Your task to perform on an android device: open a bookmark in the chrome app Image 0: 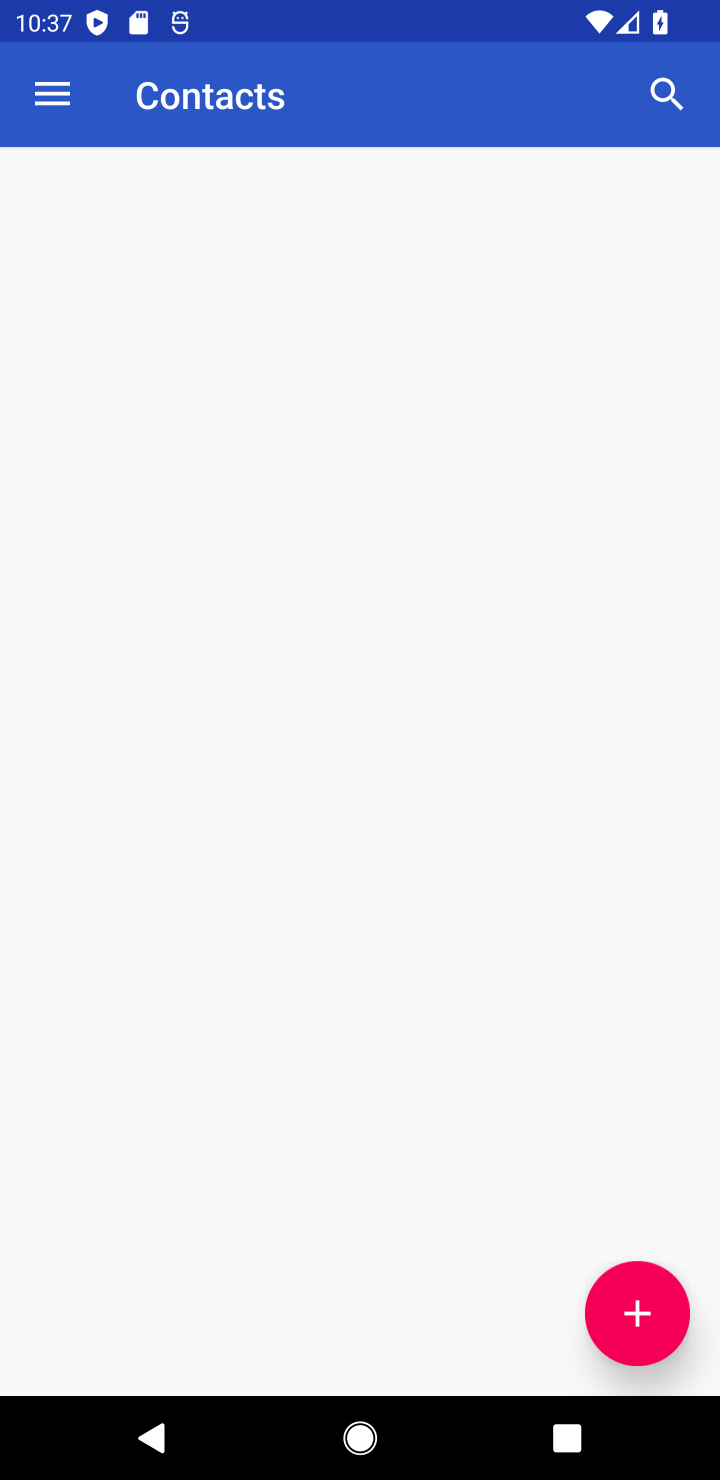
Step 0: press home button
Your task to perform on an android device: open a bookmark in the chrome app Image 1: 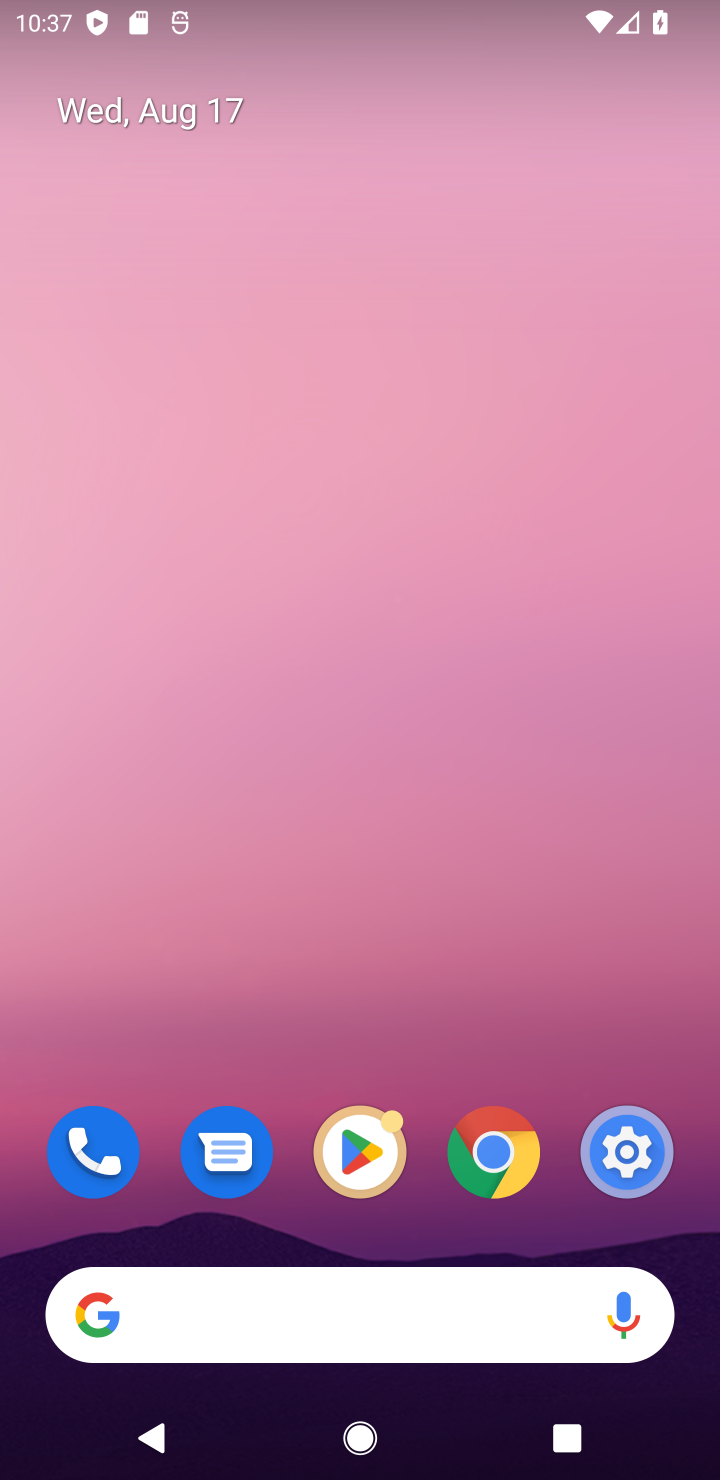
Step 1: drag from (547, 1178) to (296, 42)
Your task to perform on an android device: open a bookmark in the chrome app Image 2: 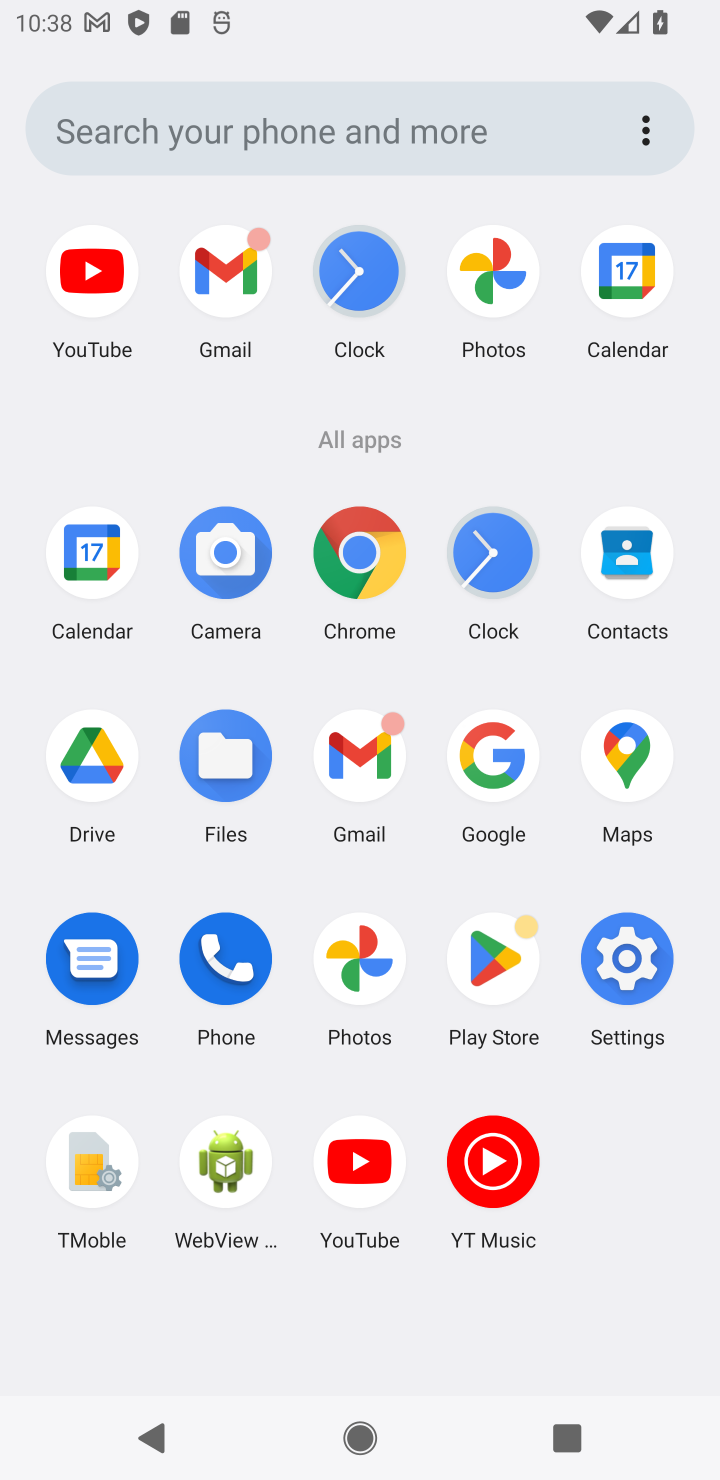
Step 2: click (362, 565)
Your task to perform on an android device: open a bookmark in the chrome app Image 3: 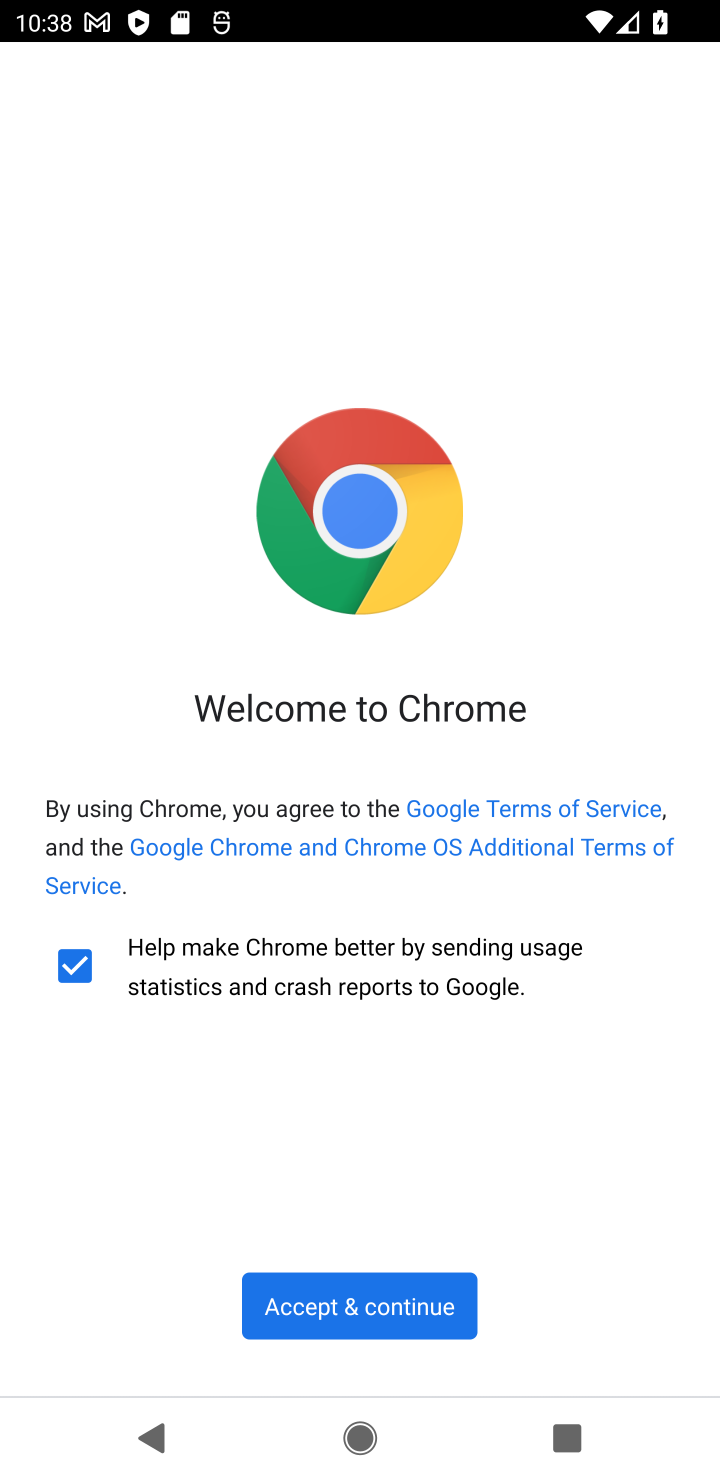
Step 3: click (370, 1302)
Your task to perform on an android device: open a bookmark in the chrome app Image 4: 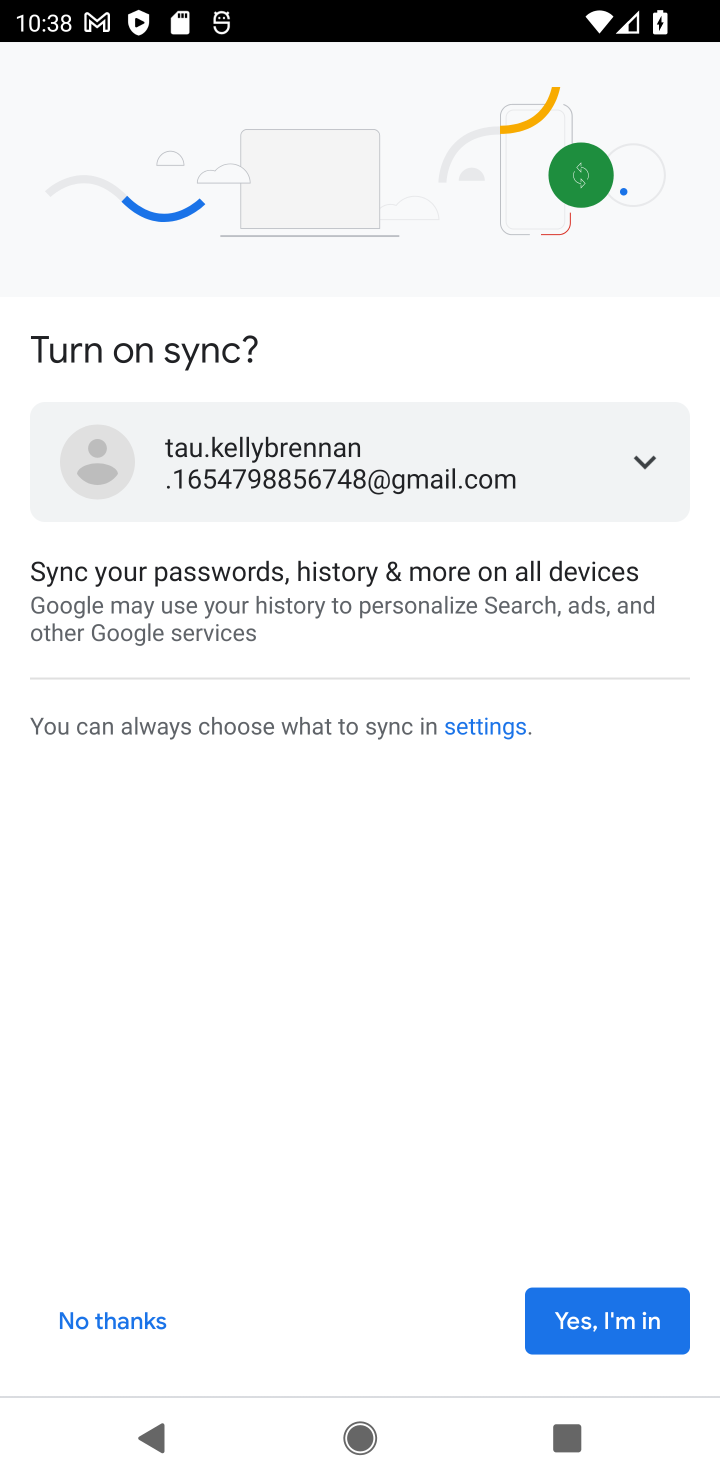
Step 4: click (555, 1321)
Your task to perform on an android device: open a bookmark in the chrome app Image 5: 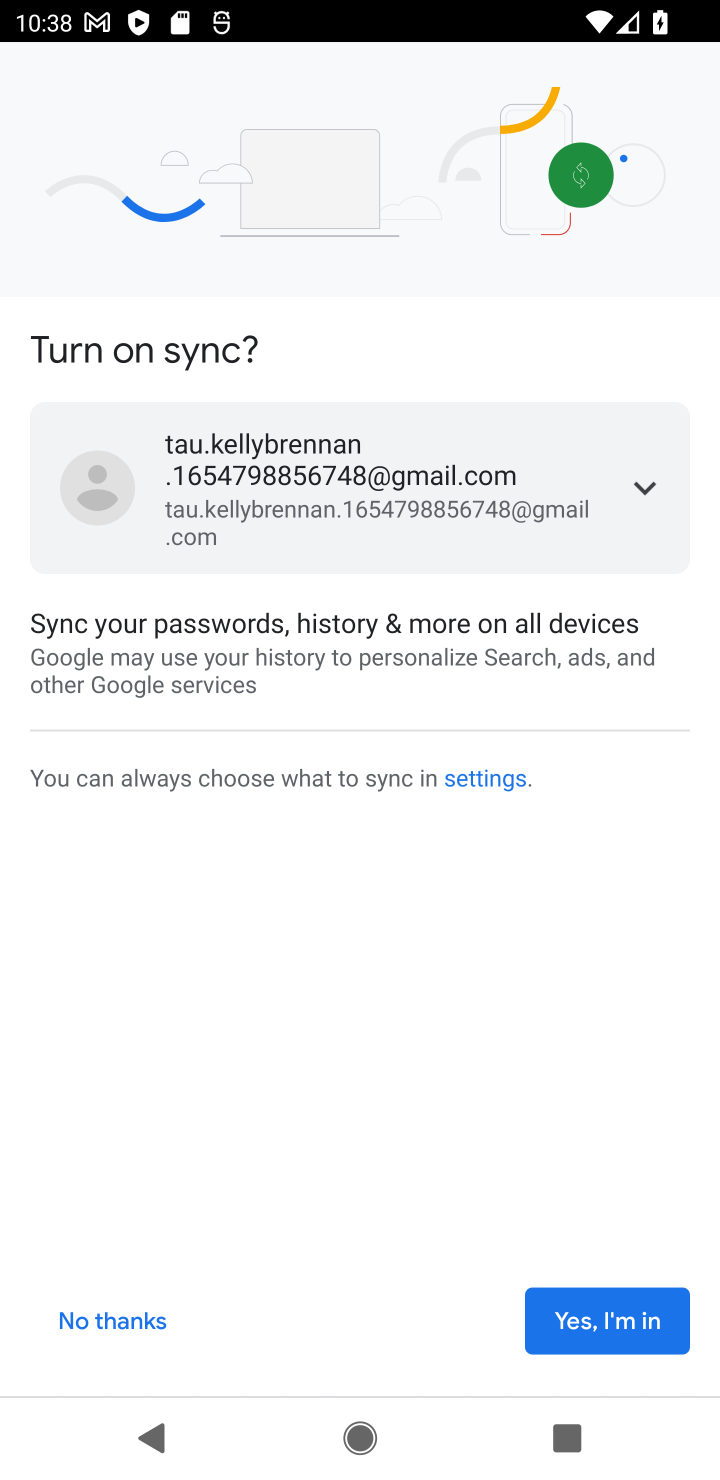
Step 5: click (610, 1323)
Your task to perform on an android device: open a bookmark in the chrome app Image 6: 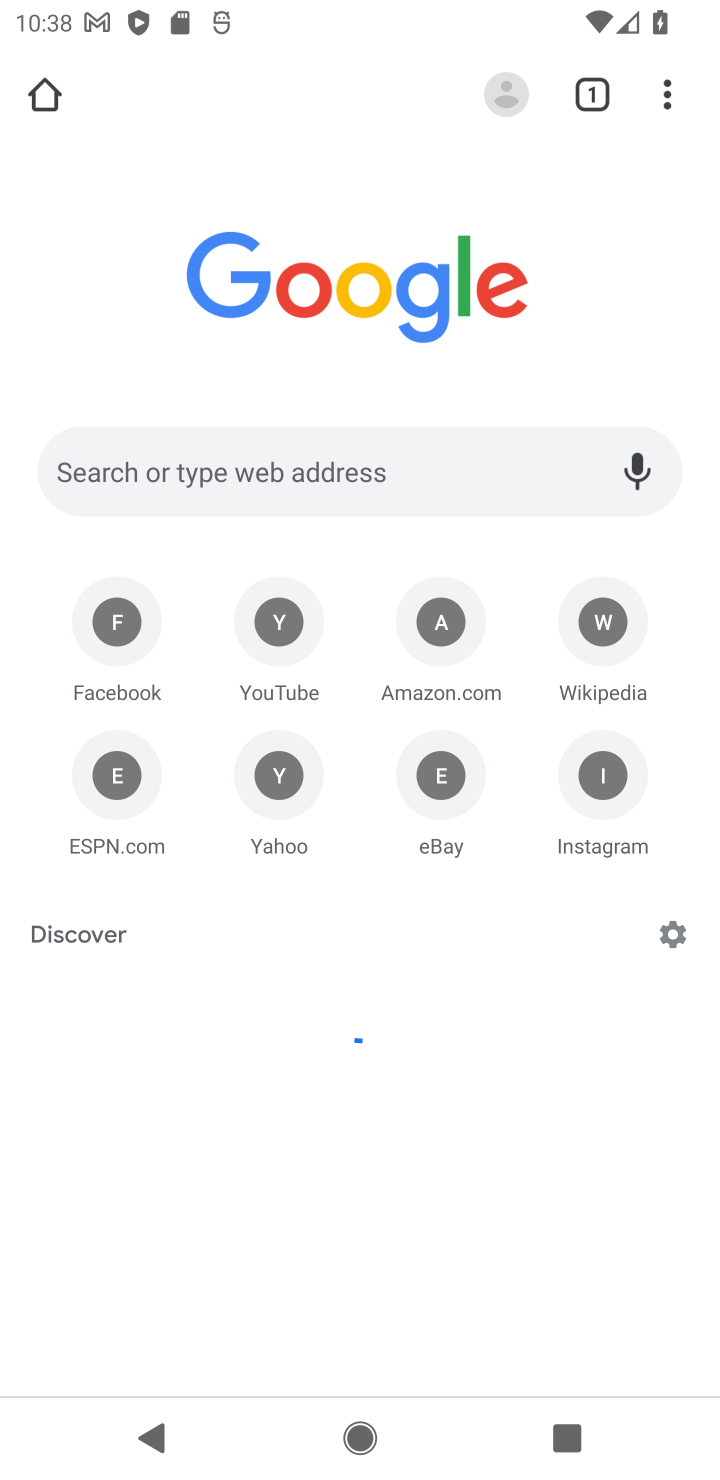
Step 6: click (674, 83)
Your task to perform on an android device: open a bookmark in the chrome app Image 7: 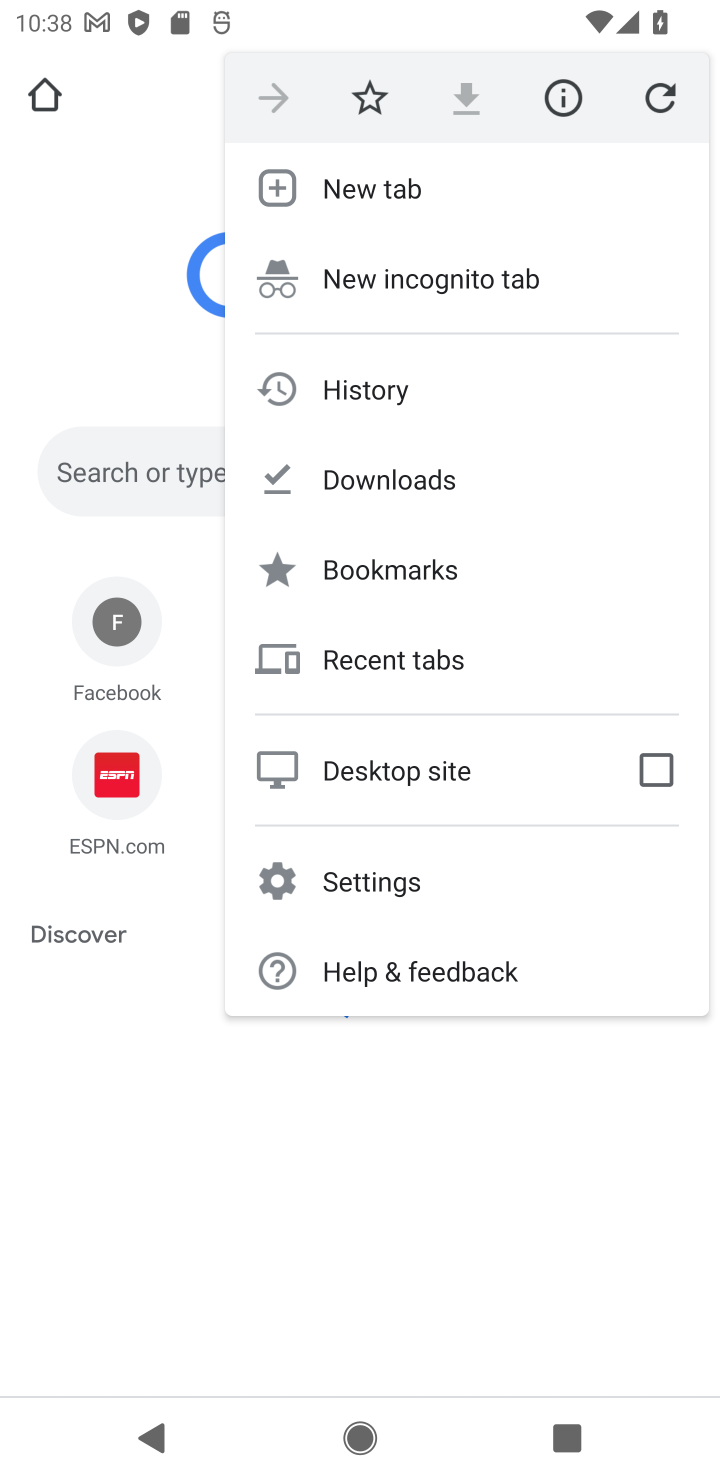
Step 7: click (439, 592)
Your task to perform on an android device: open a bookmark in the chrome app Image 8: 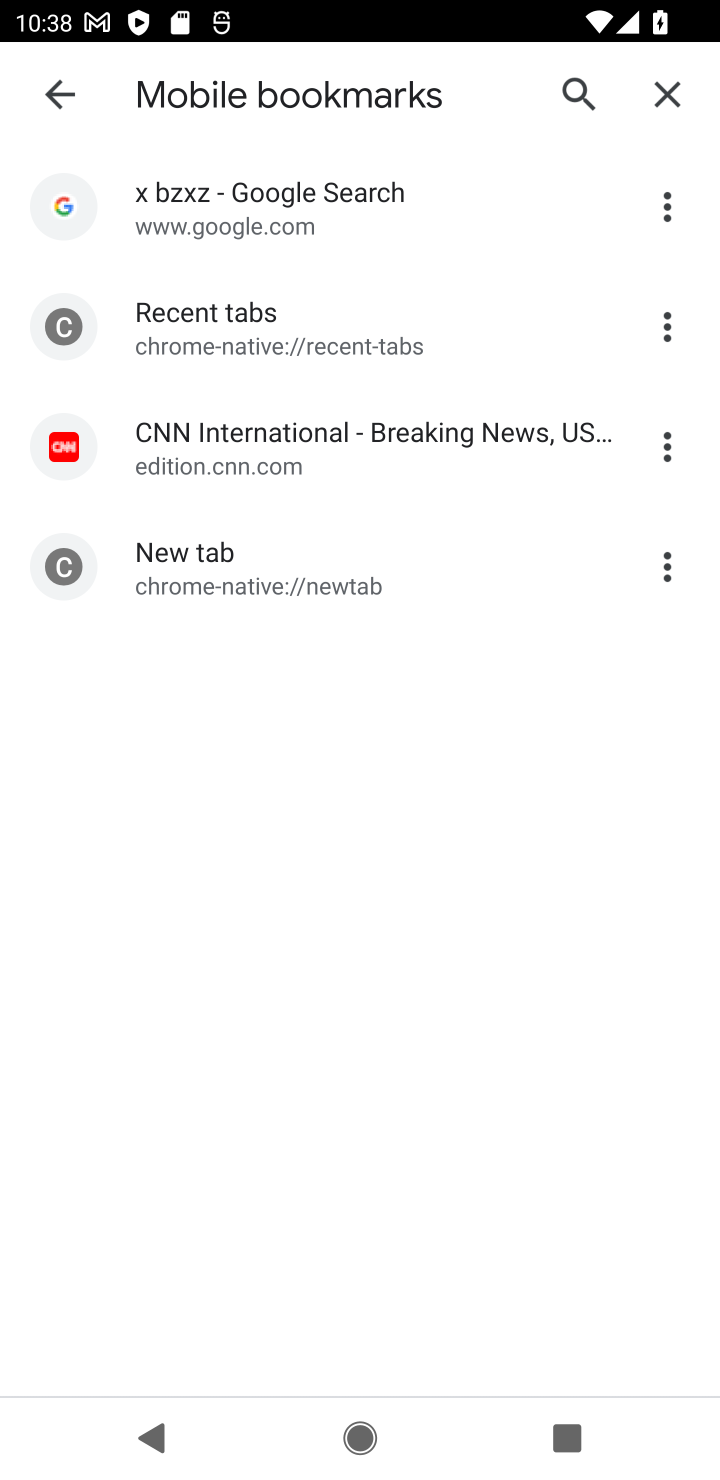
Step 8: task complete